Your task to perform on an android device: Open Chrome and go to the settings page Image 0: 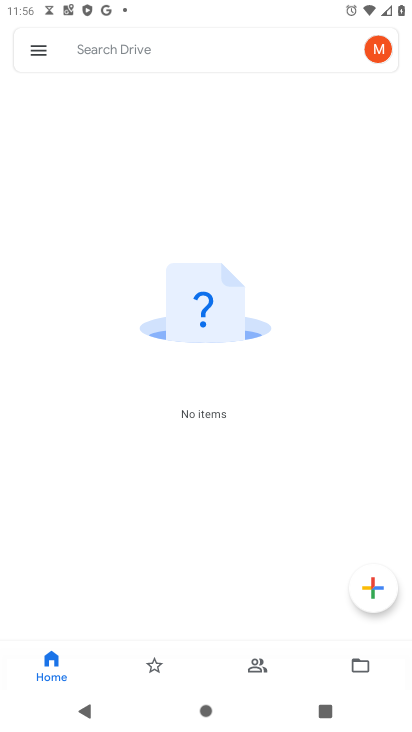
Step 0: press home button
Your task to perform on an android device: Open Chrome and go to the settings page Image 1: 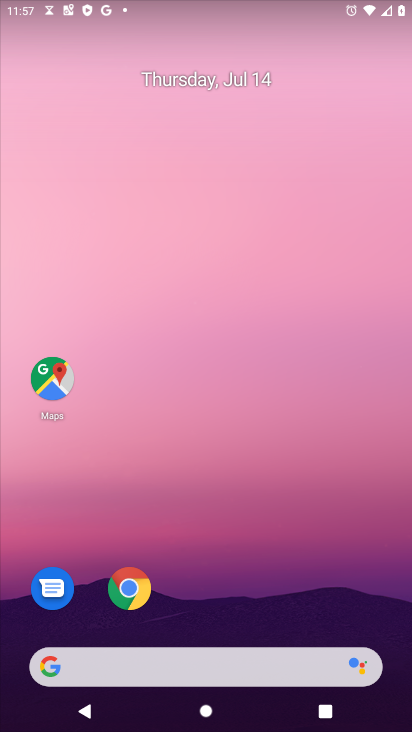
Step 1: click (137, 595)
Your task to perform on an android device: Open Chrome and go to the settings page Image 2: 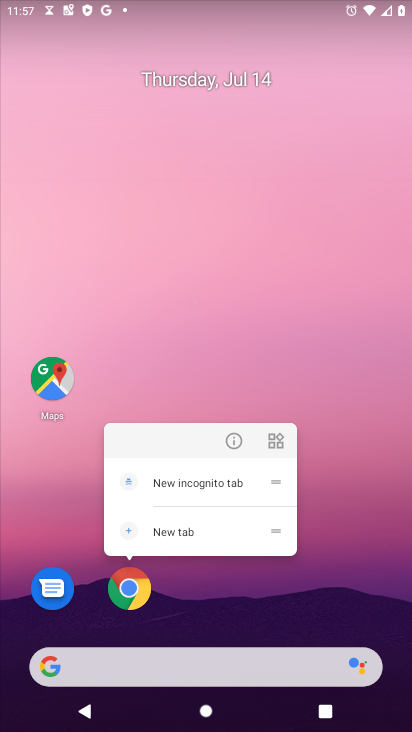
Step 2: click (128, 592)
Your task to perform on an android device: Open Chrome and go to the settings page Image 3: 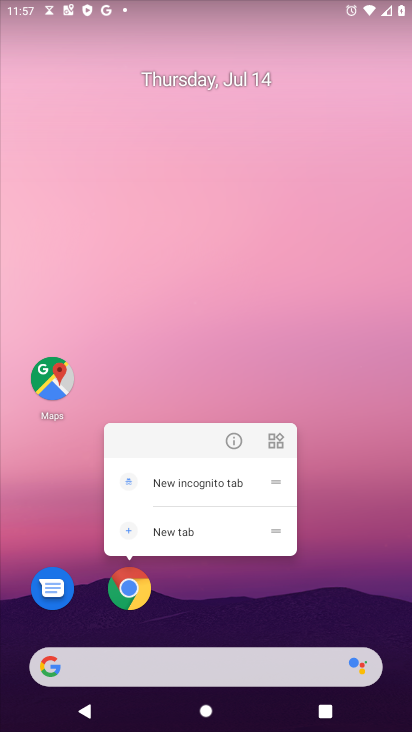
Step 3: click (128, 591)
Your task to perform on an android device: Open Chrome and go to the settings page Image 4: 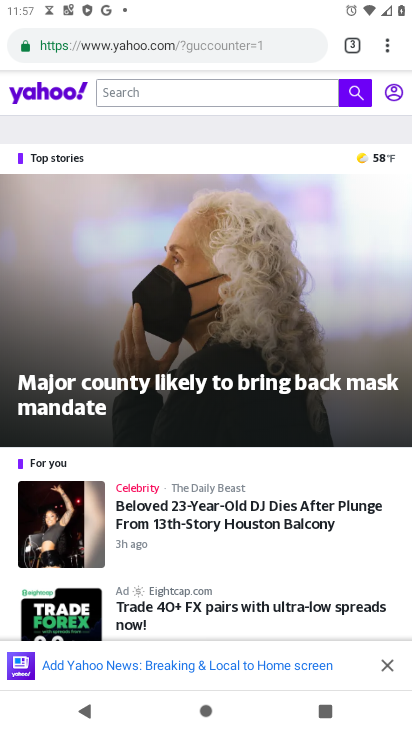
Step 4: task complete